Your task to perform on an android device: Open the stopwatch Image 0: 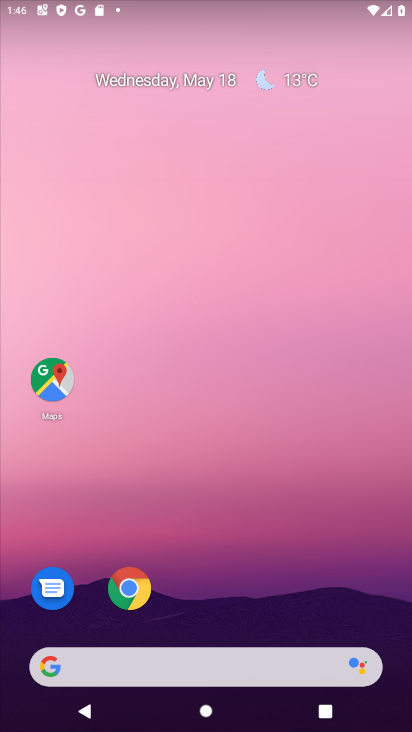
Step 0: drag from (185, 602) to (256, 369)
Your task to perform on an android device: Open the stopwatch Image 1: 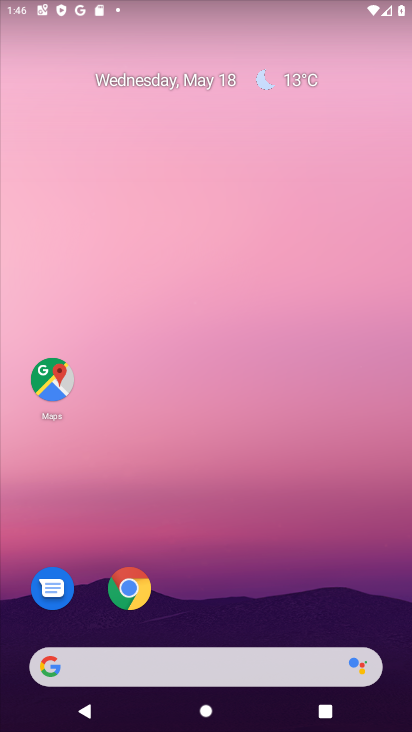
Step 1: drag from (217, 604) to (332, 53)
Your task to perform on an android device: Open the stopwatch Image 2: 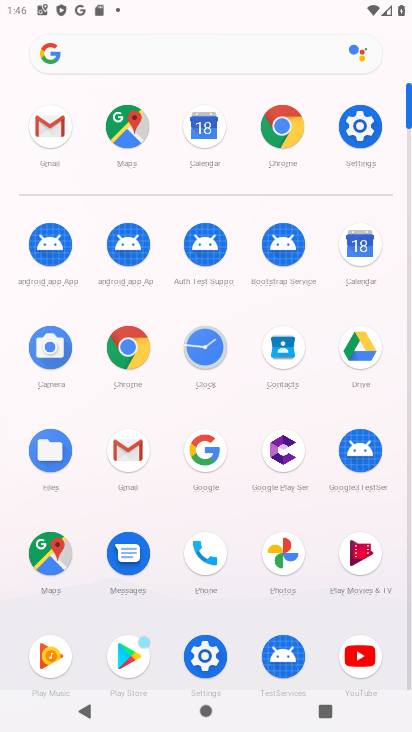
Step 2: click (204, 338)
Your task to perform on an android device: Open the stopwatch Image 3: 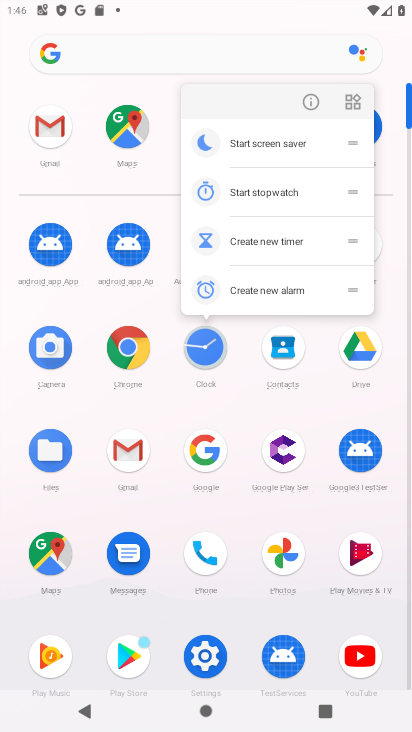
Step 3: click (310, 103)
Your task to perform on an android device: Open the stopwatch Image 4: 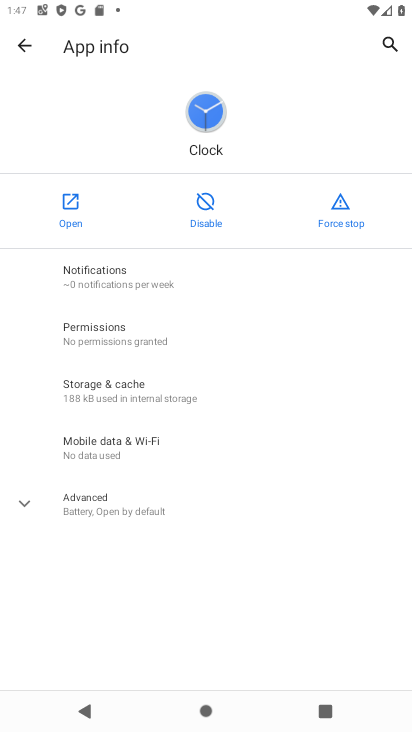
Step 4: click (56, 211)
Your task to perform on an android device: Open the stopwatch Image 5: 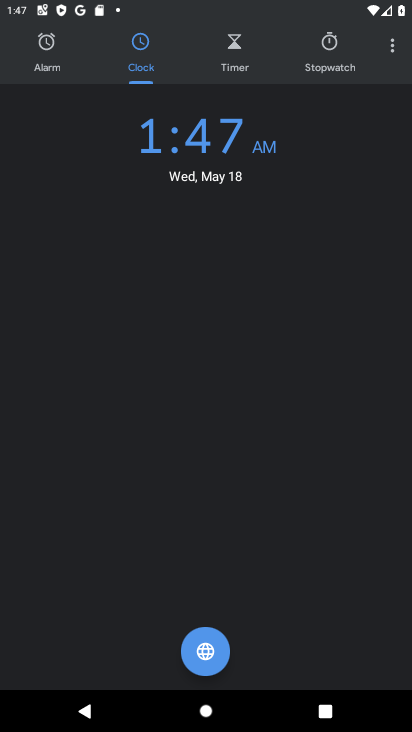
Step 5: click (304, 68)
Your task to perform on an android device: Open the stopwatch Image 6: 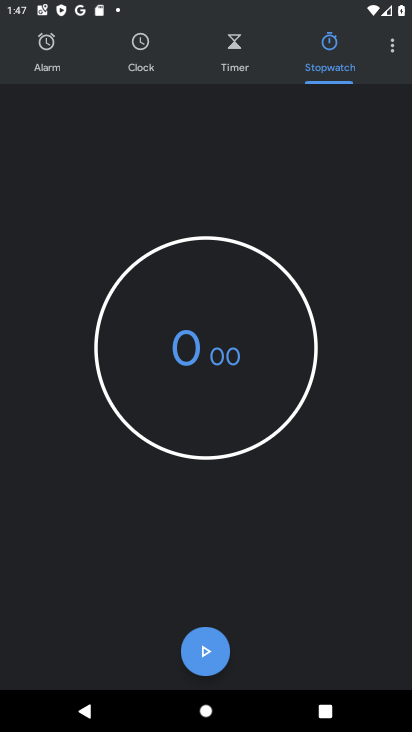
Step 6: click (206, 655)
Your task to perform on an android device: Open the stopwatch Image 7: 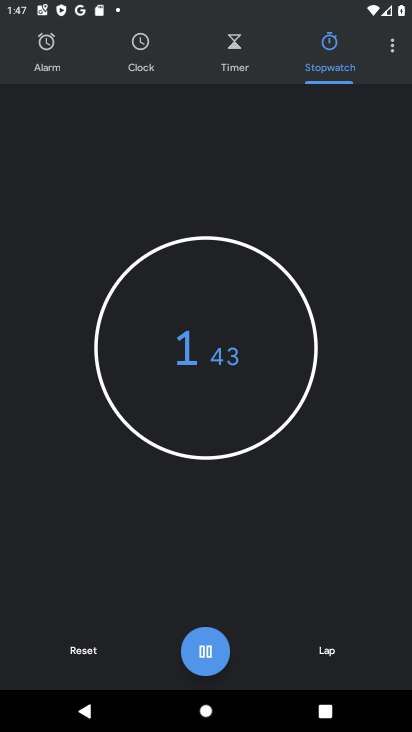
Step 7: task complete